Your task to perform on an android device: turn on notifications settings in the gmail app Image 0: 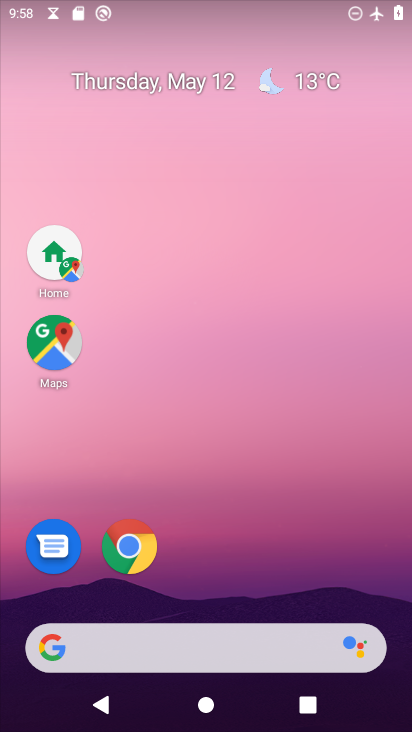
Step 0: drag from (145, 650) to (263, 268)
Your task to perform on an android device: turn on notifications settings in the gmail app Image 1: 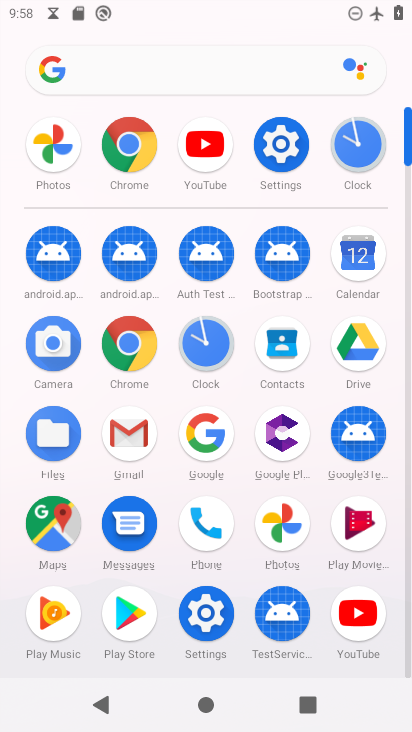
Step 1: click (137, 429)
Your task to perform on an android device: turn on notifications settings in the gmail app Image 2: 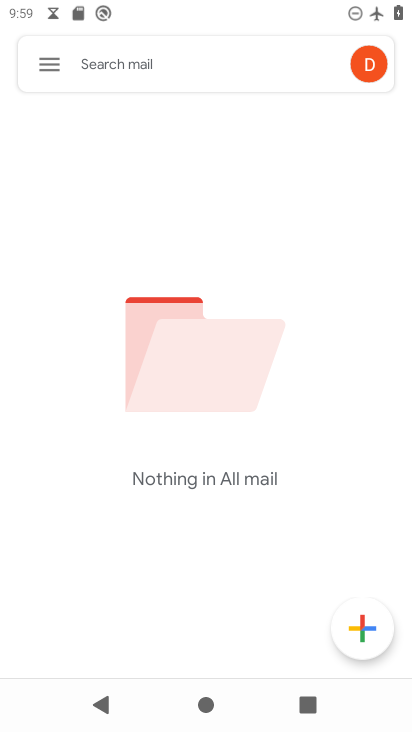
Step 2: click (42, 77)
Your task to perform on an android device: turn on notifications settings in the gmail app Image 3: 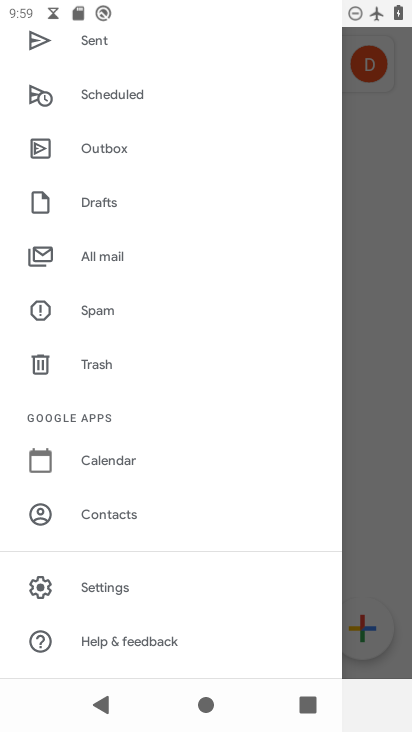
Step 3: click (110, 587)
Your task to perform on an android device: turn on notifications settings in the gmail app Image 4: 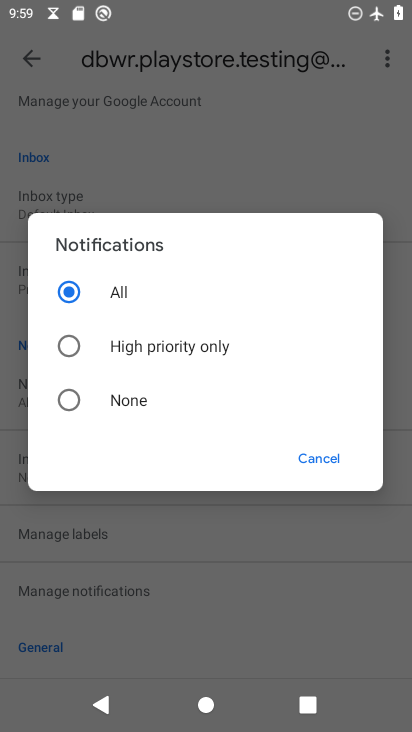
Step 4: task complete